Your task to perform on an android device: turn on improve location accuracy Image 0: 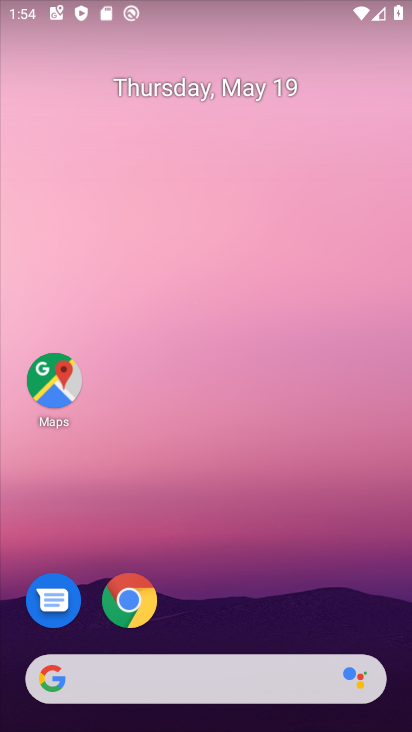
Step 0: press home button
Your task to perform on an android device: turn on improve location accuracy Image 1: 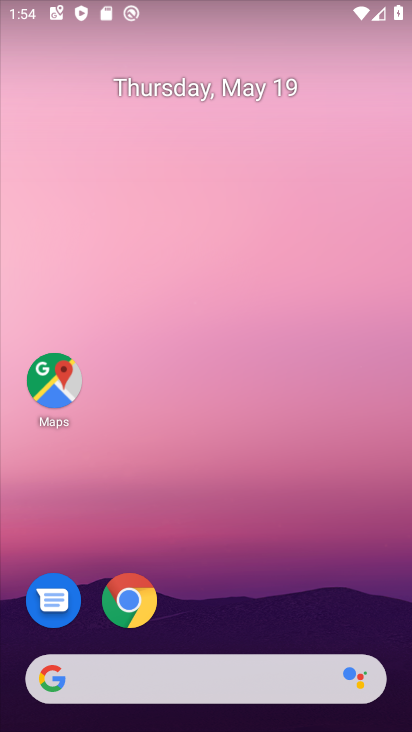
Step 1: drag from (29, 561) to (241, 133)
Your task to perform on an android device: turn on improve location accuracy Image 2: 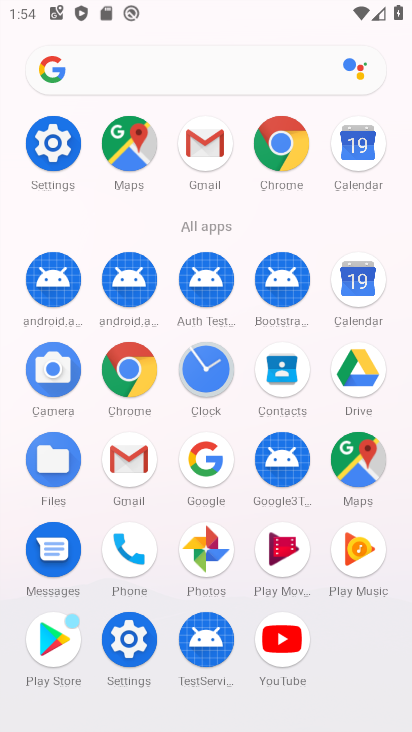
Step 2: click (43, 134)
Your task to perform on an android device: turn on improve location accuracy Image 3: 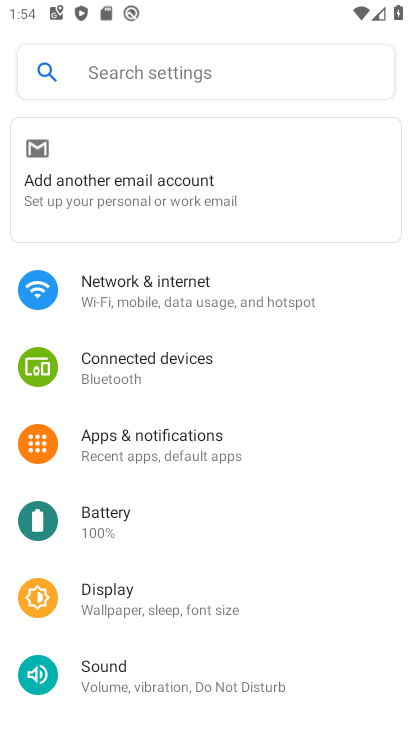
Step 3: drag from (24, 642) to (229, 220)
Your task to perform on an android device: turn on improve location accuracy Image 4: 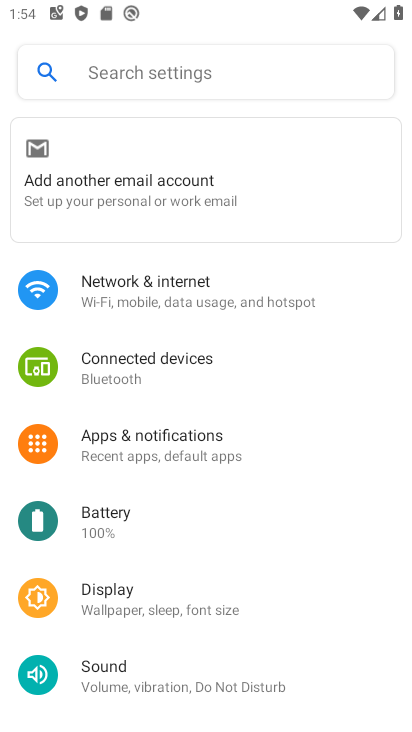
Step 4: drag from (34, 465) to (215, 161)
Your task to perform on an android device: turn on improve location accuracy Image 5: 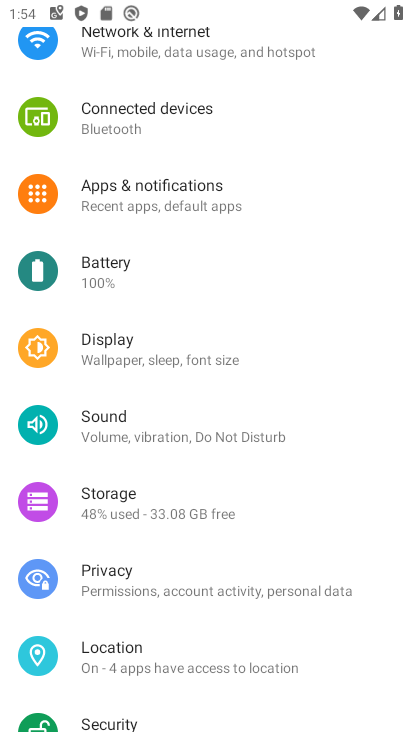
Step 5: click (131, 663)
Your task to perform on an android device: turn on improve location accuracy Image 6: 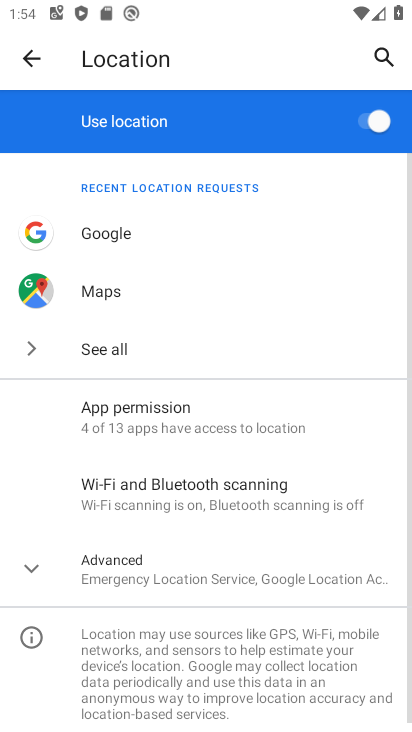
Step 6: click (188, 581)
Your task to perform on an android device: turn on improve location accuracy Image 7: 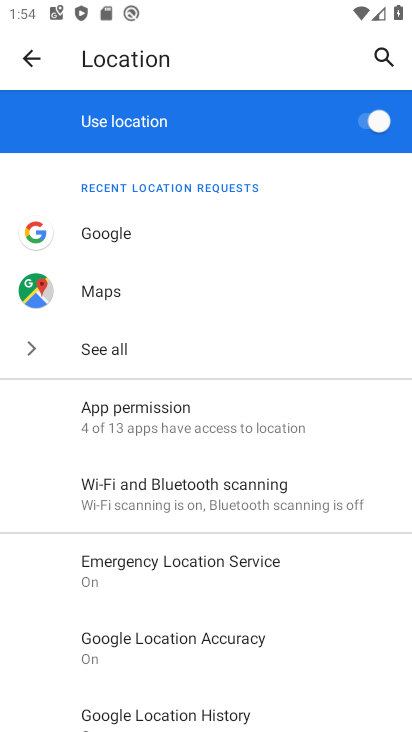
Step 7: click (127, 652)
Your task to perform on an android device: turn on improve location accuracy Image 8: 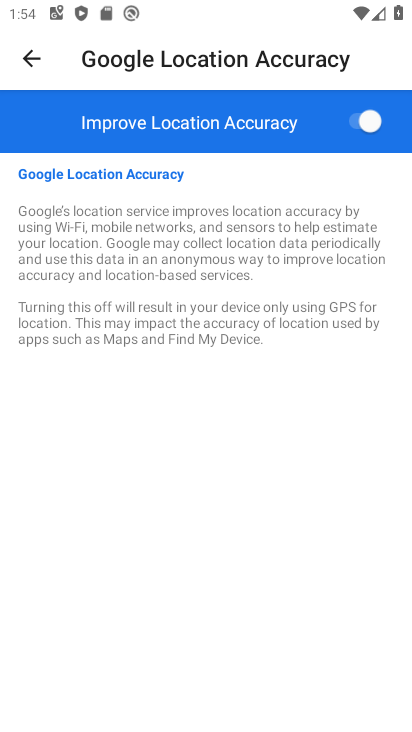
Step 8: click (367, 122)
Your task to perform on an android device: turn on improve location accuracy Image 9: 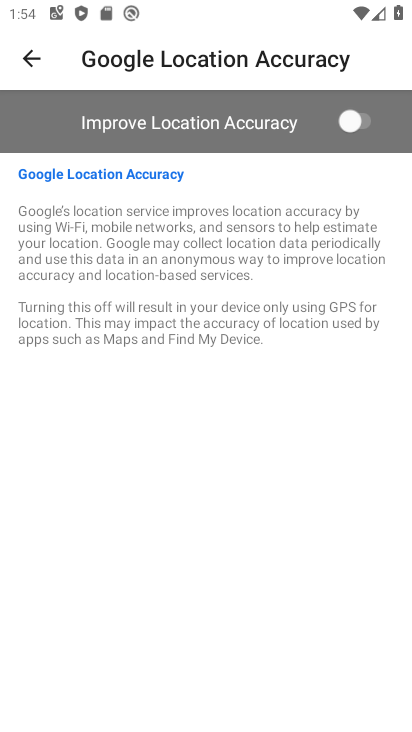
Step 9: task complete